Your task to perform on an android device: Show me popular videos on Youtube Image 0: 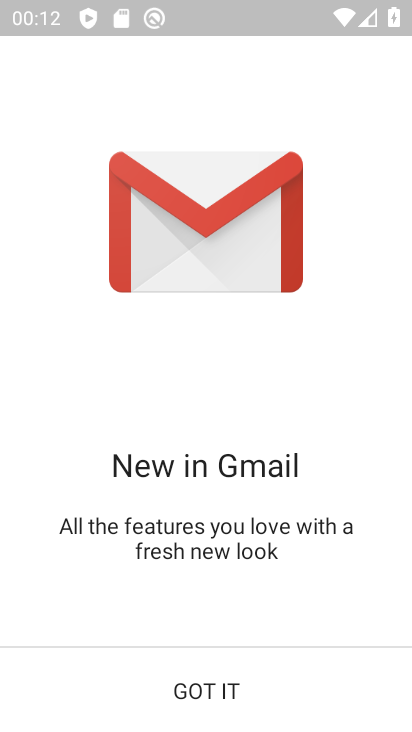
Step 0: press home button
Your task to perform on an android device: Show me popular videos on Youtube Image 1: 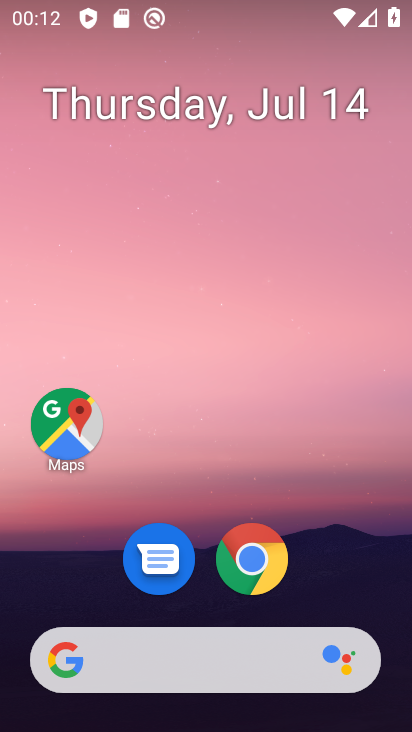
Step 1: drag from (298, 607) to (274, 138)
Your task to perform on an android device: Show me popular videos on Youtube Image 2: 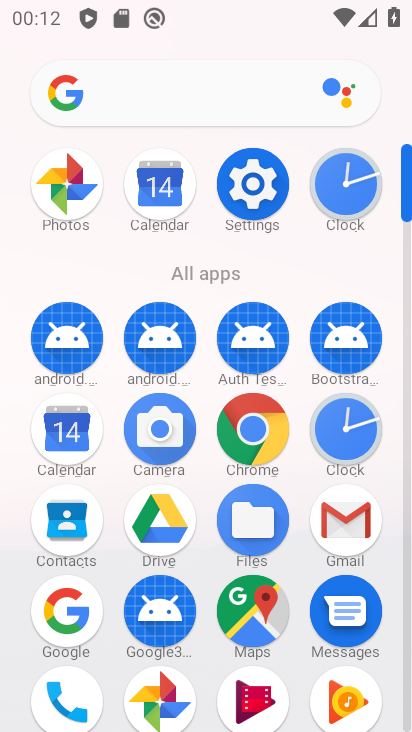
Step 2: drag from (295, 534) to (328, 243)
Your task to perform on an android device: Show me popular videos on Youtube Image 3: 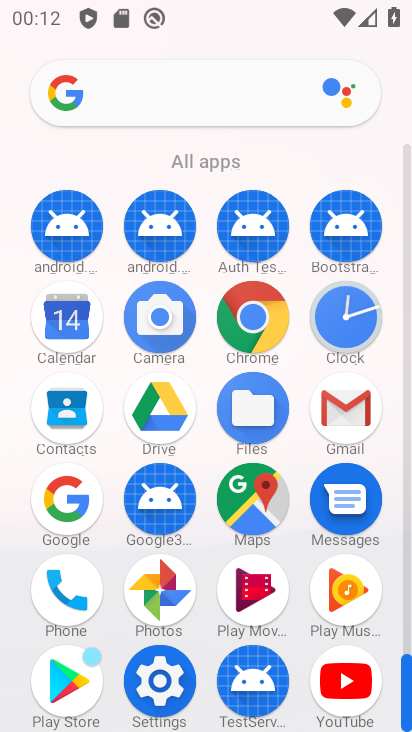
Step 3: click (363, 677)
Your task to perform on an android device: Show me popular videos on Youtube Image 4: 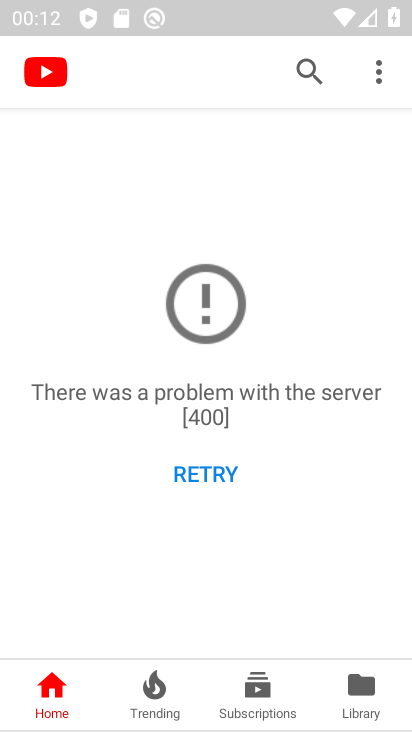
Step 4: task complete